Your task to perform on an android device: add a contact in the contacts app Image 0: 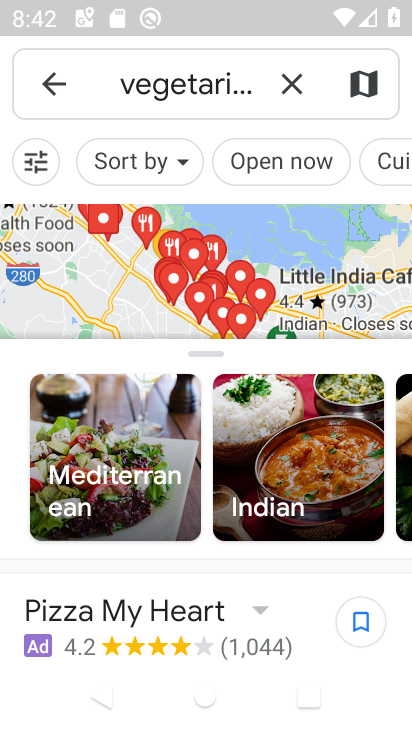
Step 0: press home button
Your task to perform on an android device: add a contact in the contacts app Image 1: 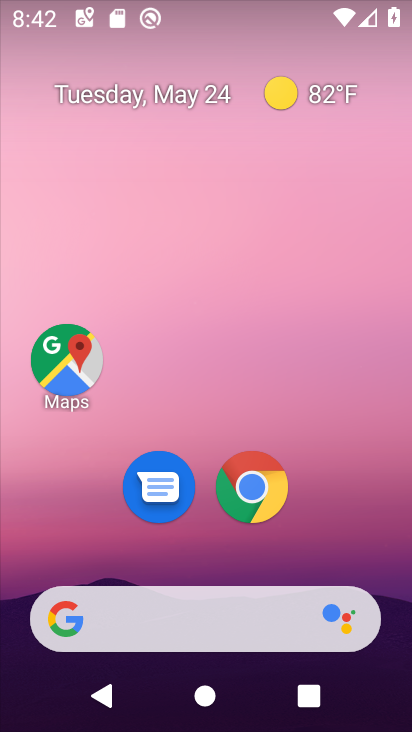
Step 1: drag from (329, 543) to (328, 138)
Your task to perform on an android device: add a contact in the contacts app Image 2: 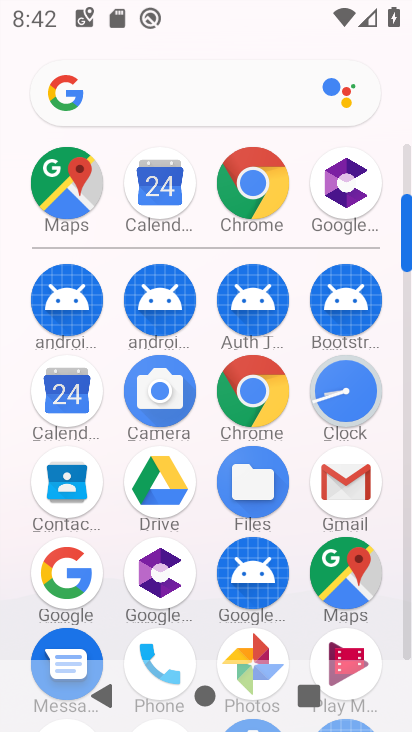
Step 2: click (65, 510)
Your task to perform on an android device: add a contact in the contacts app Image 3: 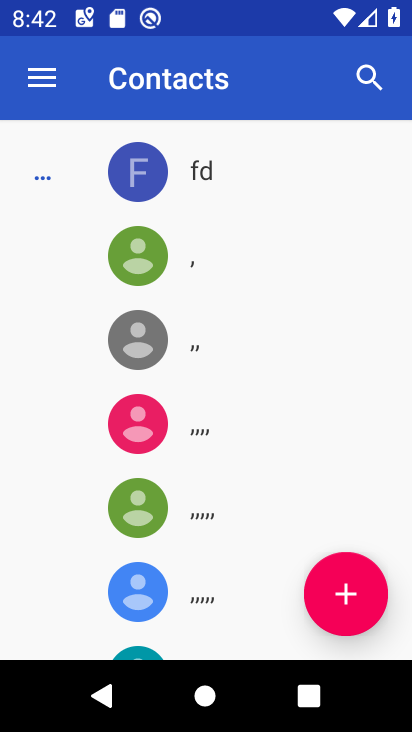
Step 3: click (368, 627)
Your task to perform on an android device: add a contact in the contacts app Image 4: 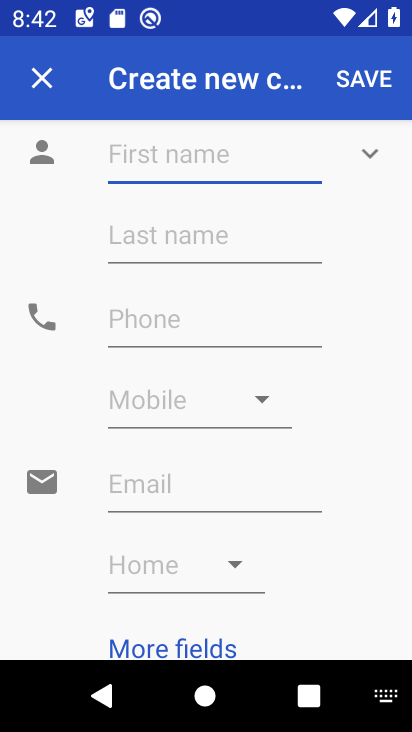
Step 4: click (193, 146)
Your task to perform on an android device: add a contact in the contacts app Image 5: 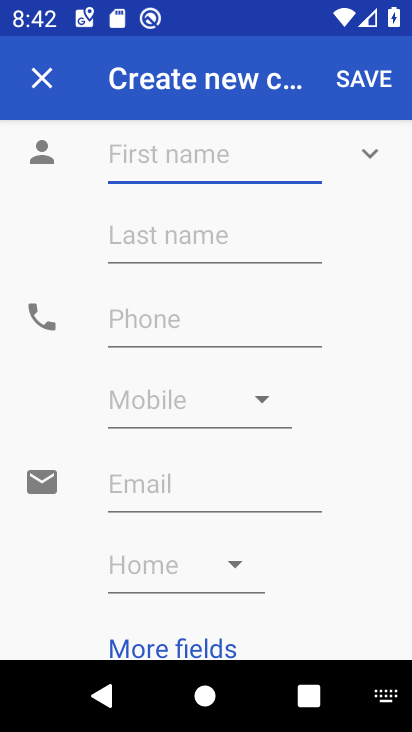
Step 5: type "ldfmld"
Your task to perform on an android device: add a contact in the contacts app Image 6: 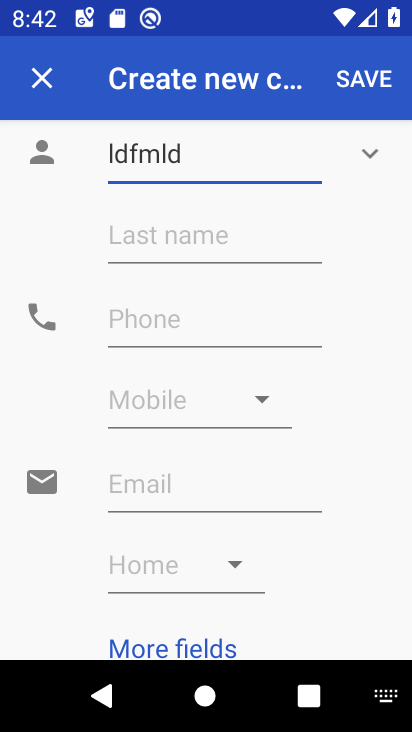
Step 6: click (175, 326)
Your task to perform on an android device: add a contact in the contacts app Image 7: 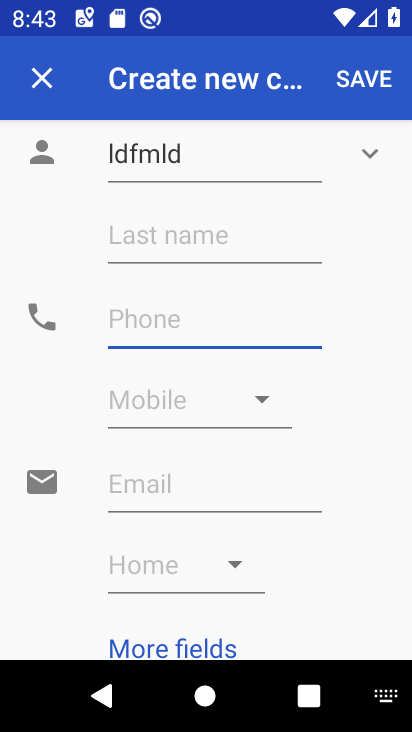
Step 7: type "039509485503"
Your task to perform on an android device: add a contact in the contacts app Image 8: 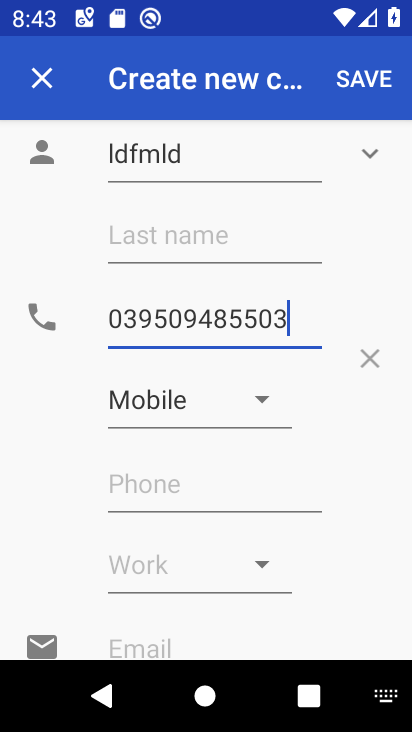
Step 8: click (361, 84)
Your task to perform on an android device: add a contact in the contacts app Image 9: 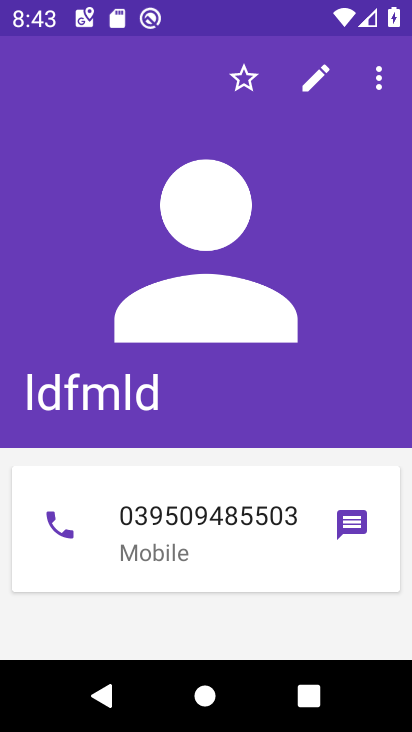
Step 9: task complete